Your task to perform on an android device: open app "Chime – Mobile Banking" (install if not already installed) and go to login screen Image 0: 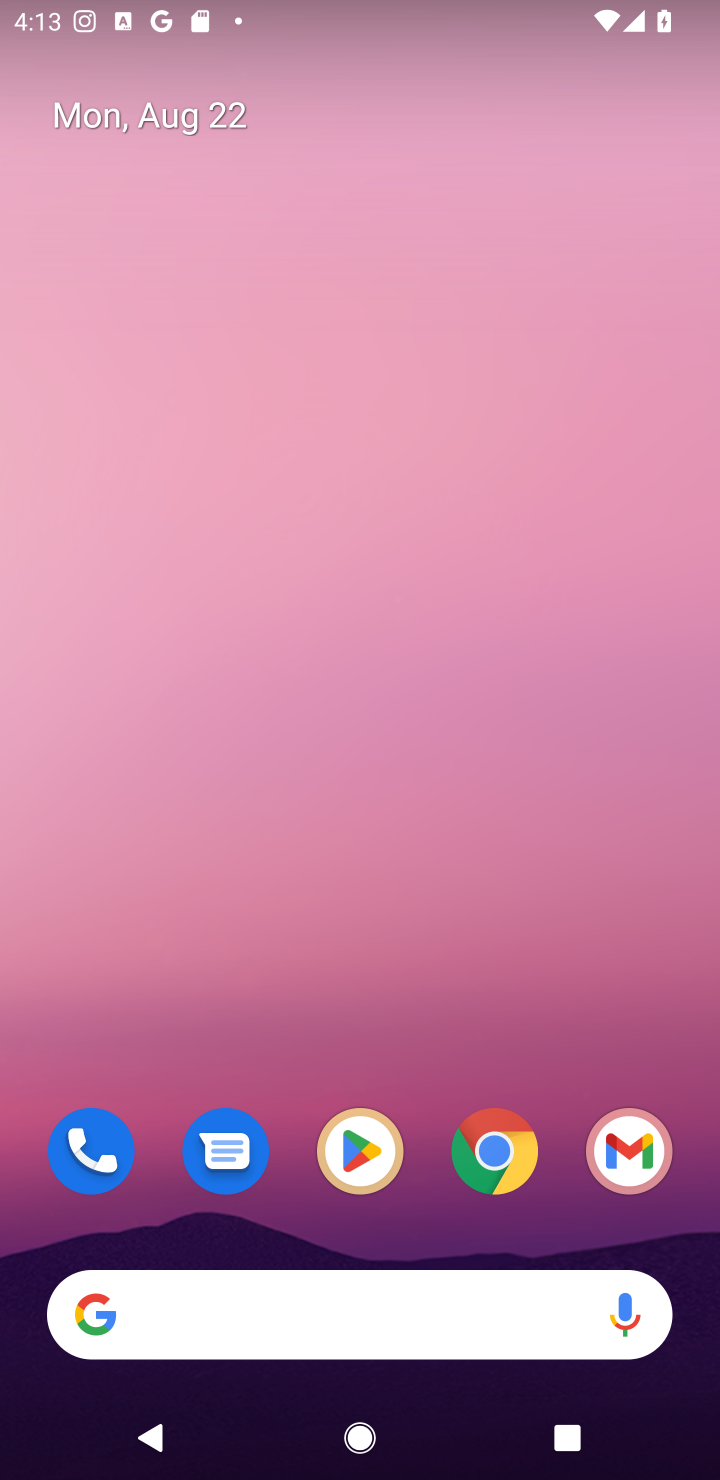
Step 0: click (355, 1156)
Your task to perform on an android device: open app "Chime – Mobile Banking" (install if not already installed) and go to login screen Image 1: 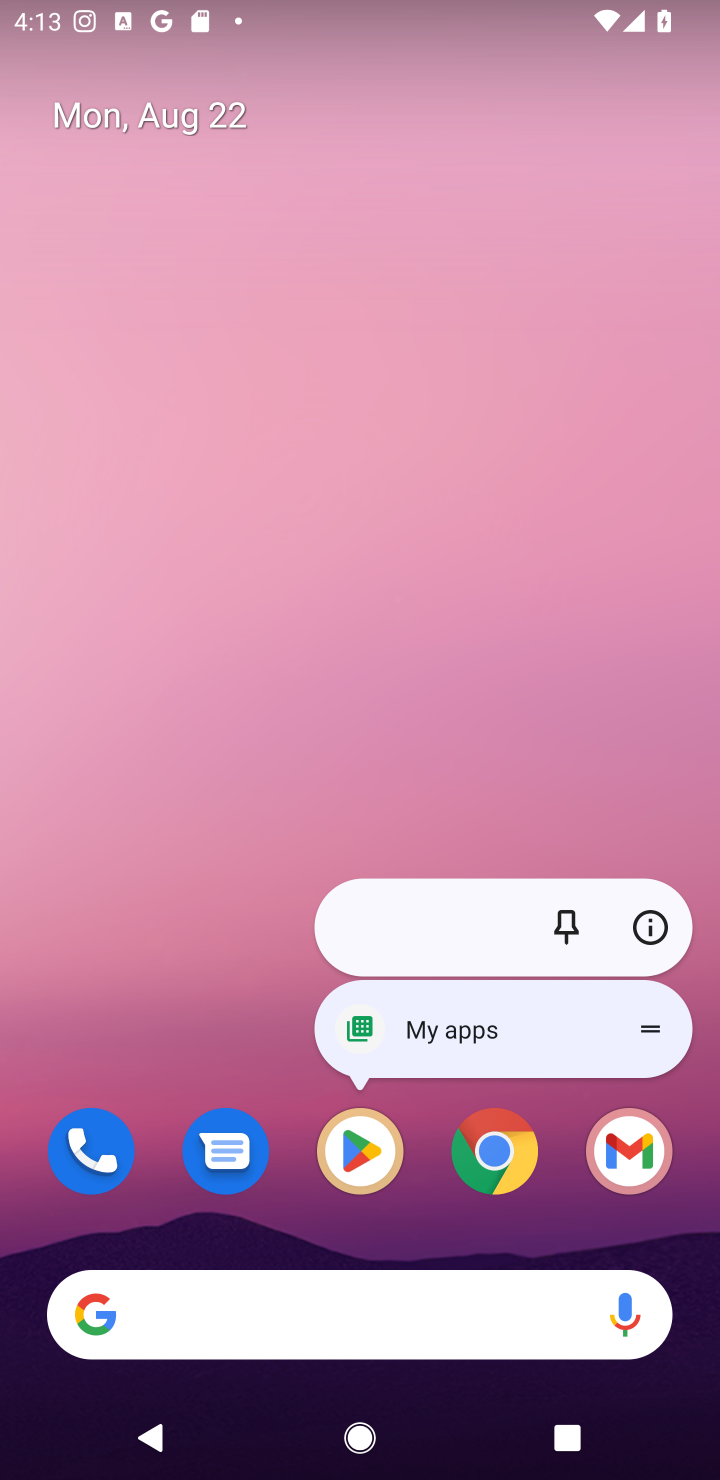
Step 1: click (374, 1138)
Your task to perform on an android device: open app "Chime – Mobile Banking" (install if not already installed) and go to login screen Image 2: 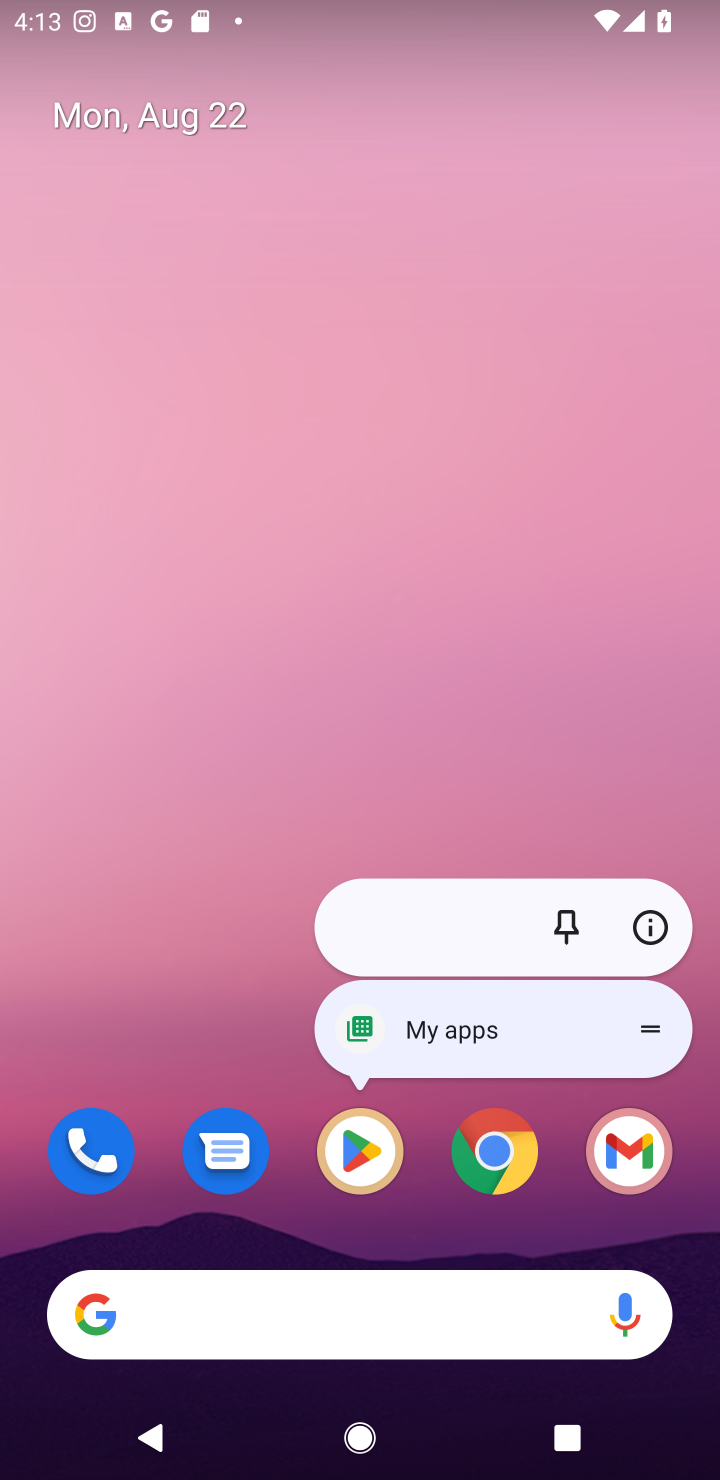
Step 2: click (375, 1147)
Your task to perform on an android device: open app "Chime – Mobile Banking" (install if not already installed) and go to login screen Image 3: 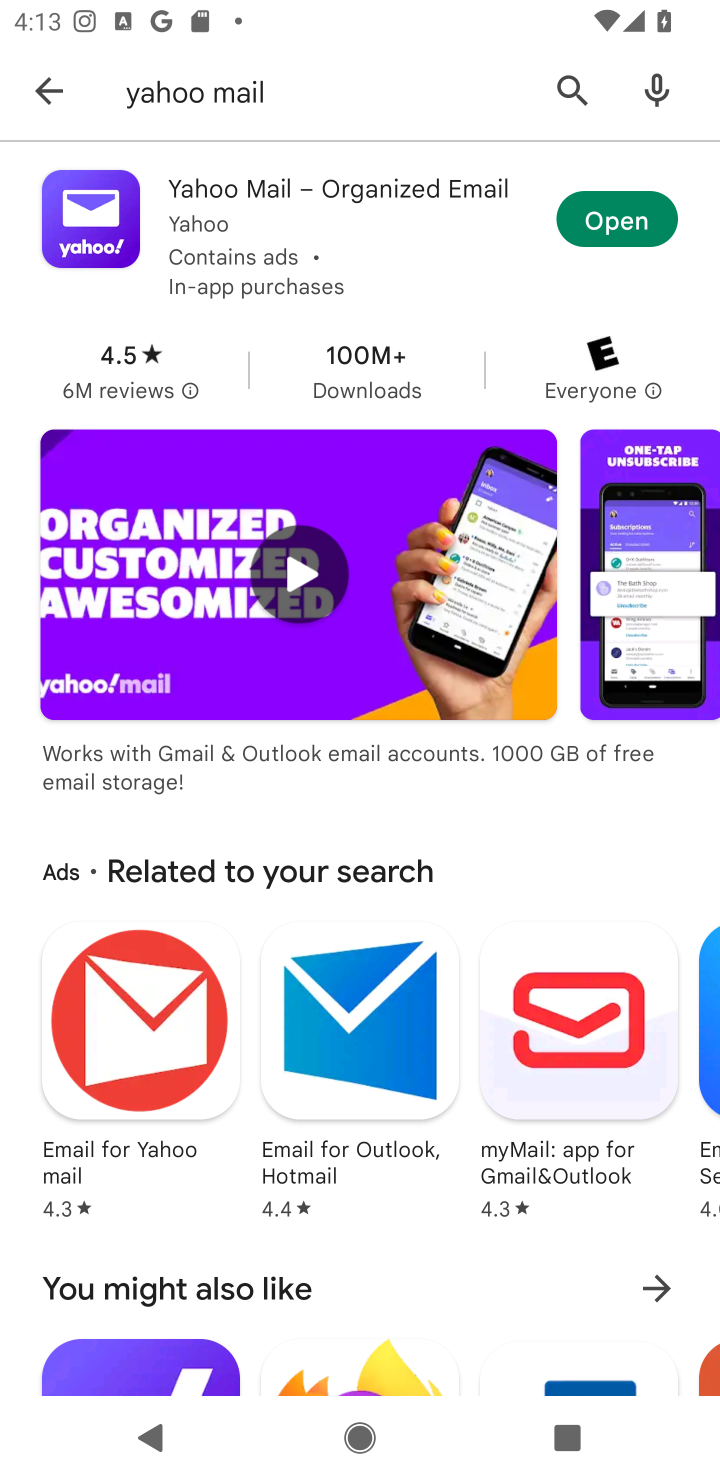
Step 3: click (570, 82)
Your task to perform on an android device: open app "Chime – Mobile Banking" (install if not already installed) and go to login screen Image 4: 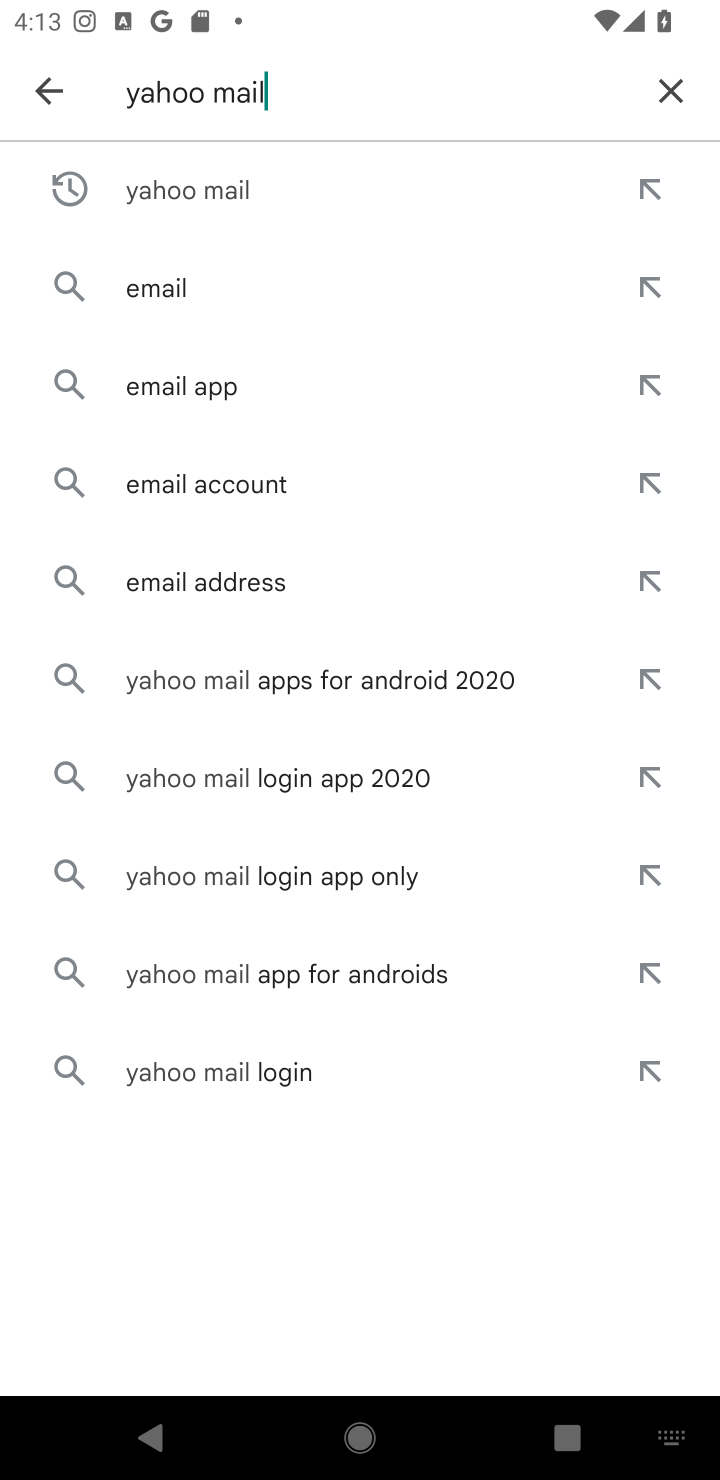
Step 4: click (659, 76)
Your task to perform on an android device: open app "Chime – Mobile Banking" (install if not already installed) and go to login screen Image 5: 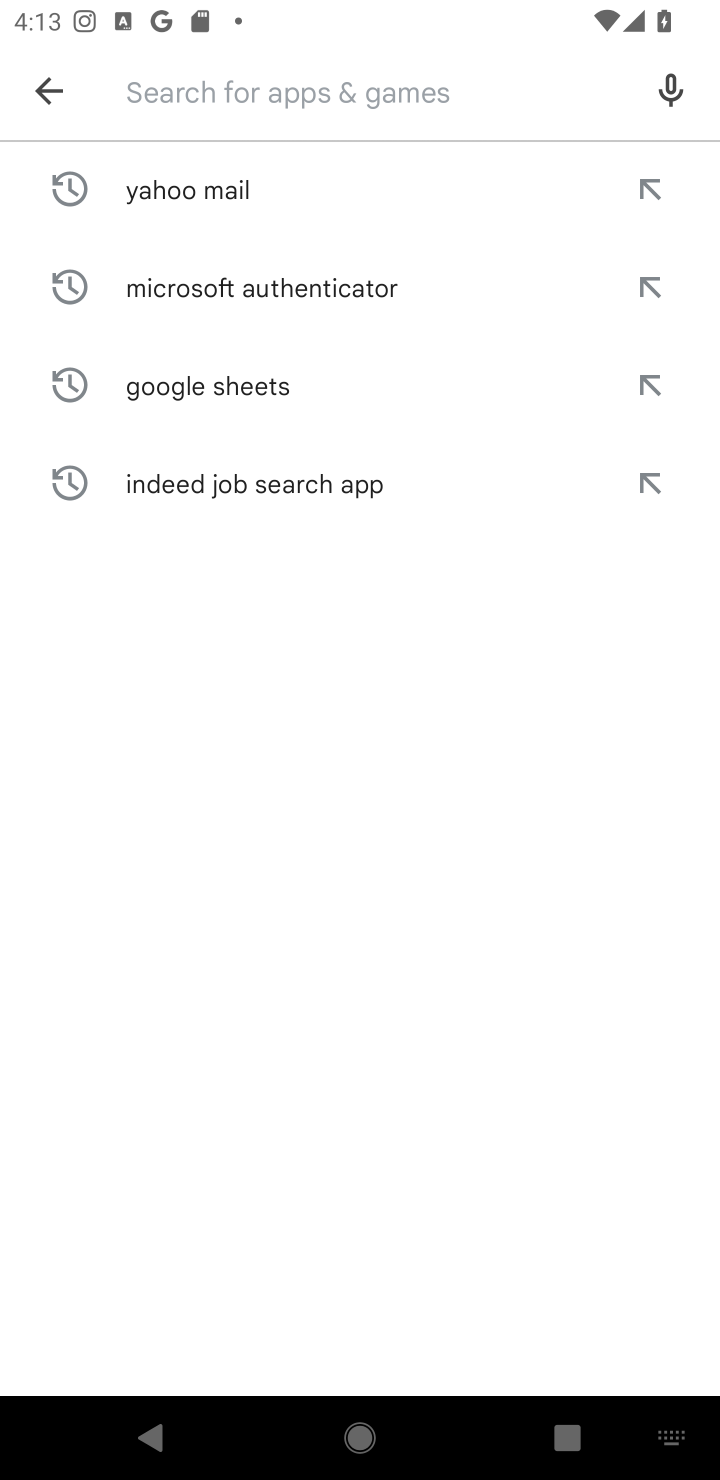
Step 5: type "Chime Mobile Banking"
Your task to perform on an android device: open app "Chime – Mobile Banking" (install if not already installed) and go to login screen Image 6: 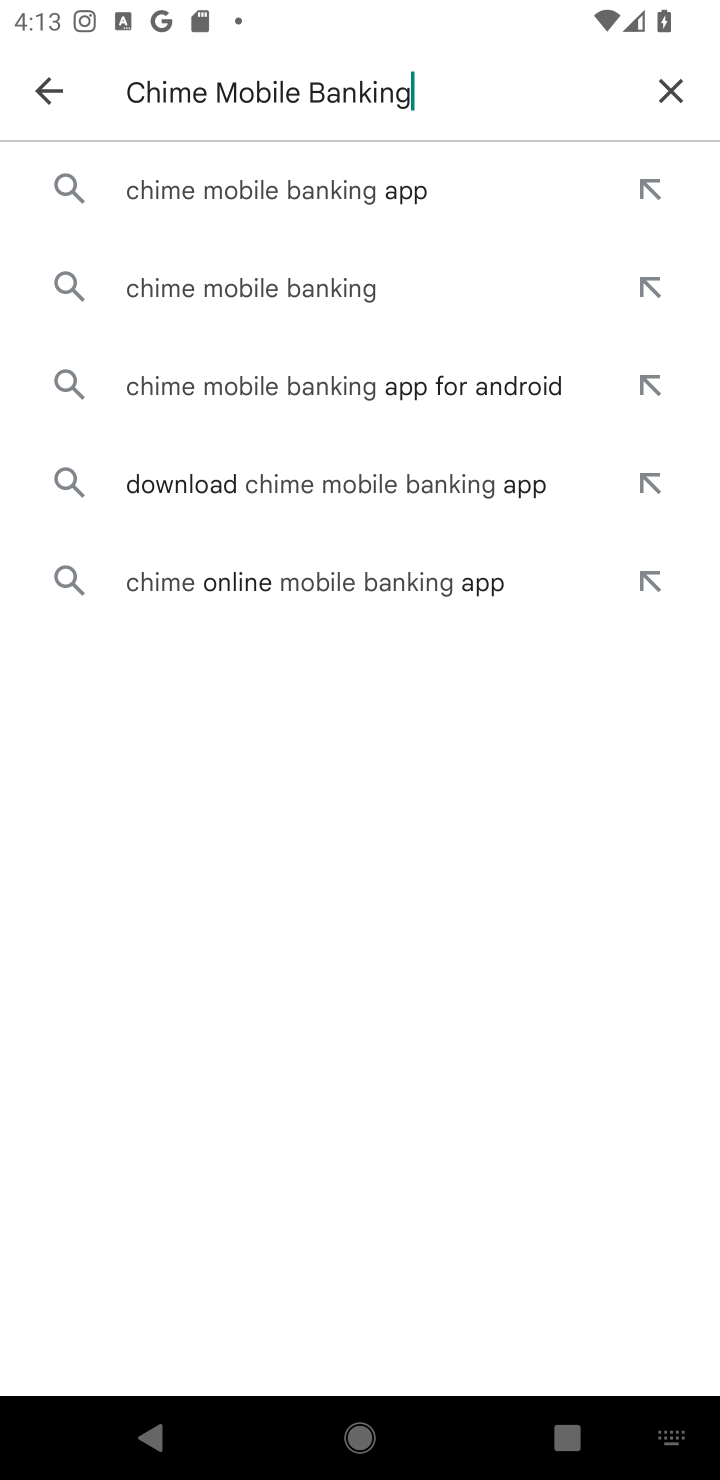
Step 6: click (349, 186)
Your task to perform on an android device: open app "Chime – Mobile Banking" (install if not already installed) and go to login screen Image 7: 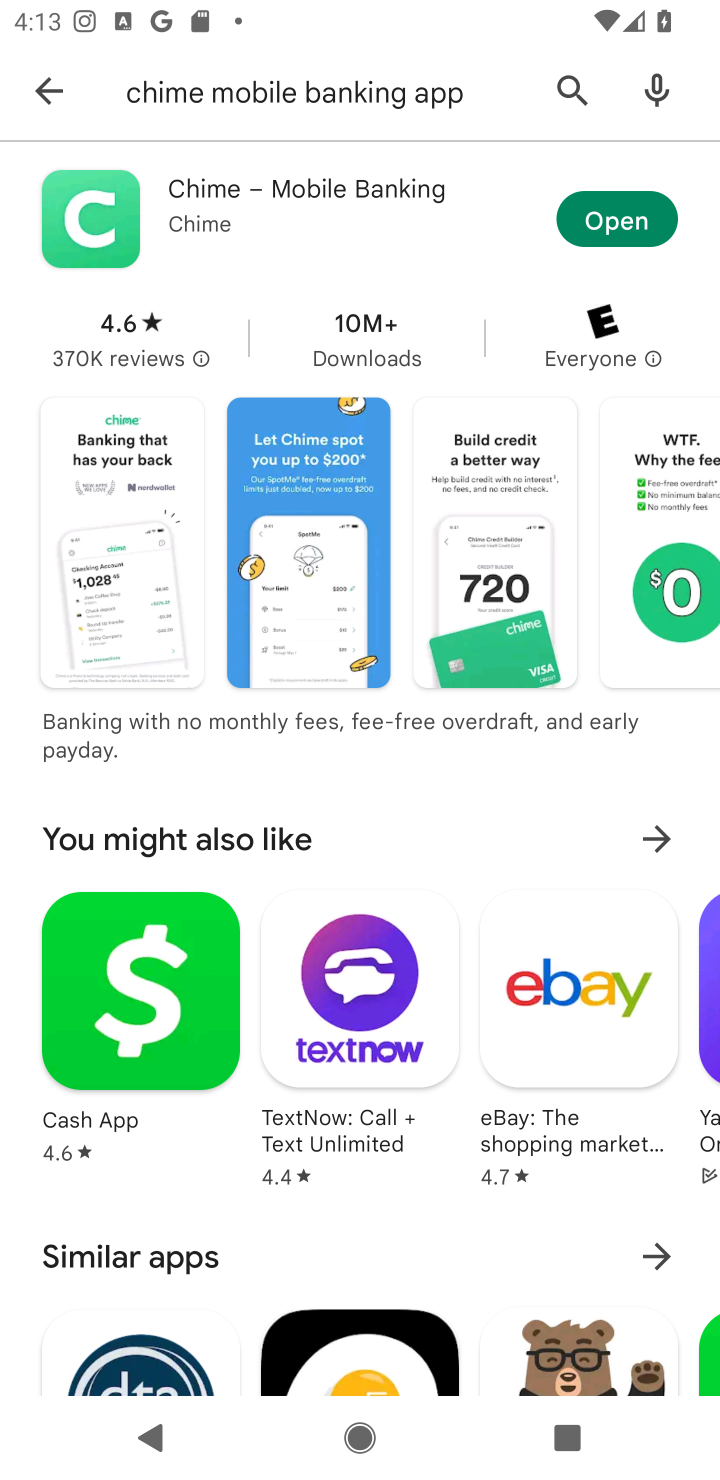
Step 7: click (600, 201)
Your task to perform on an android device: open app "Chime – Mobile Banking" (install if not already installed) and go to login screen Image 8: 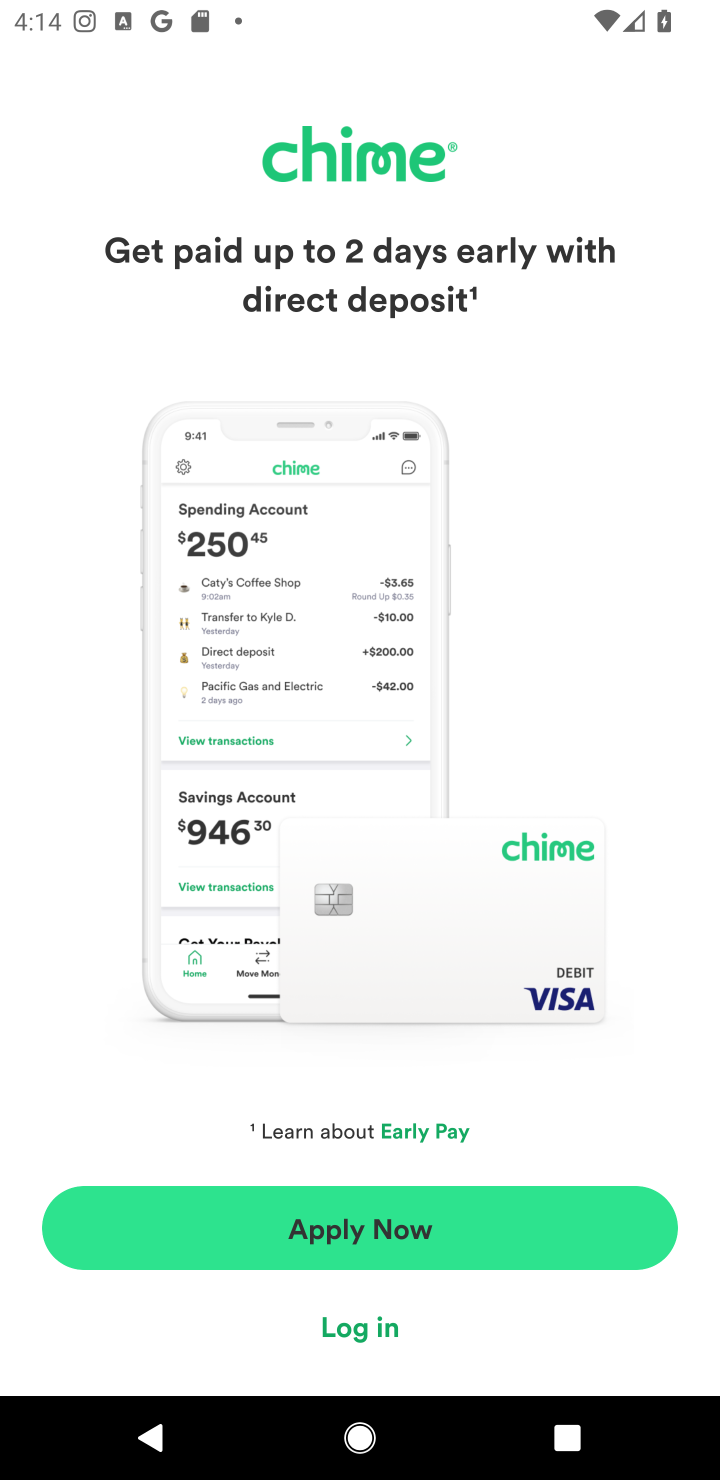
Step 8: click (384, 1339)
Your task to perform on an android device: open app "Chime – Mobile Banking" (install if not already installed) and go to login screen Image 9: 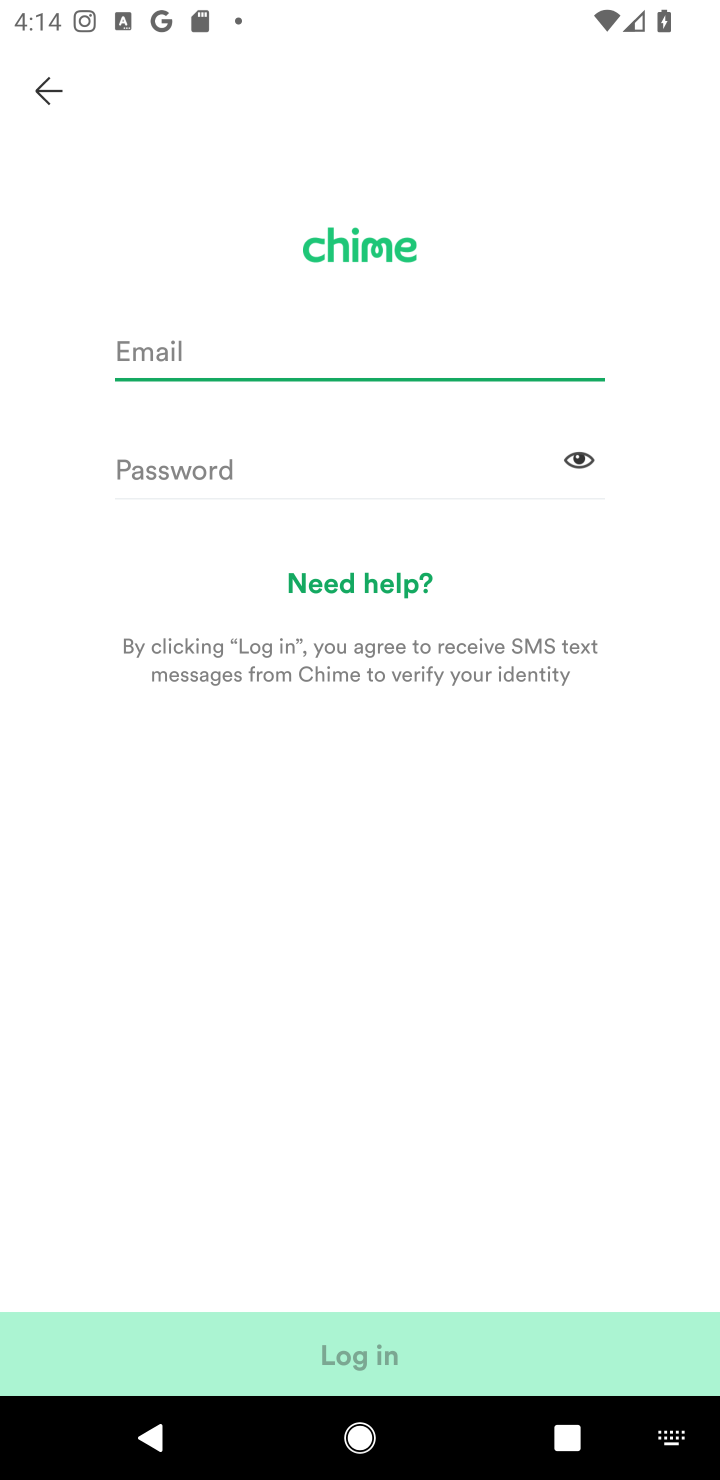
Step 9: task complete